Your task to perform on an android device: refresh tabs in the chrome app Image 0: 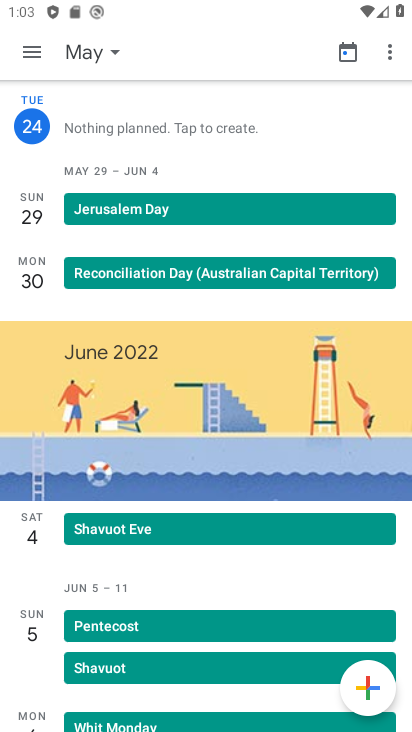
Step 0: press back button
Your task to perform on an android device: refresh tabs in the chrome app Image 1: 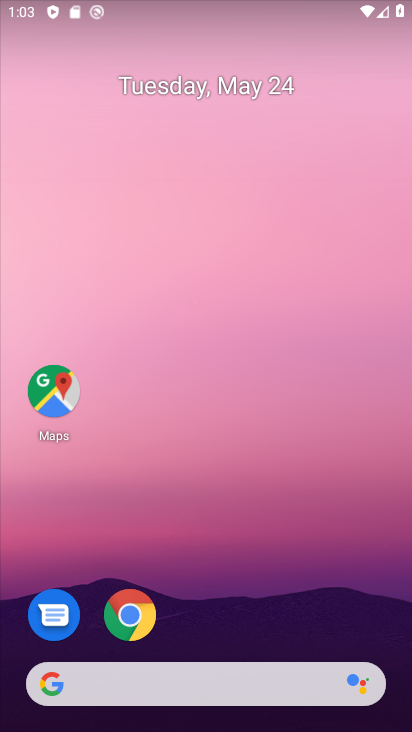
Step 1: click (140, 615)
Your task to perform on an android device: refresh tabs in the chrome app Image 2: 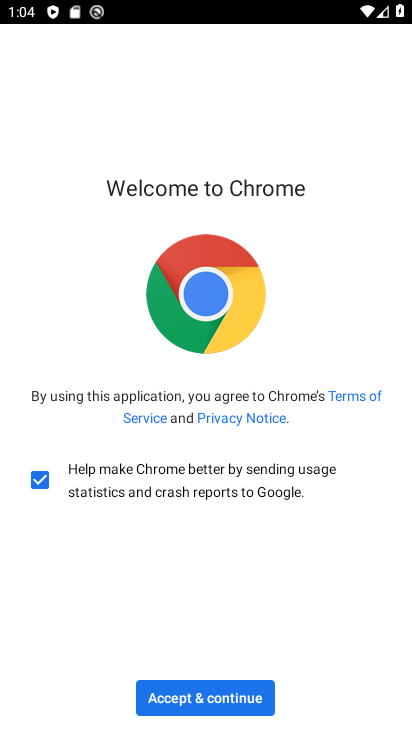
Step 2: click (181, 697)
Your task to perform on an android device: refresh tabs in the chrome app Image 3: 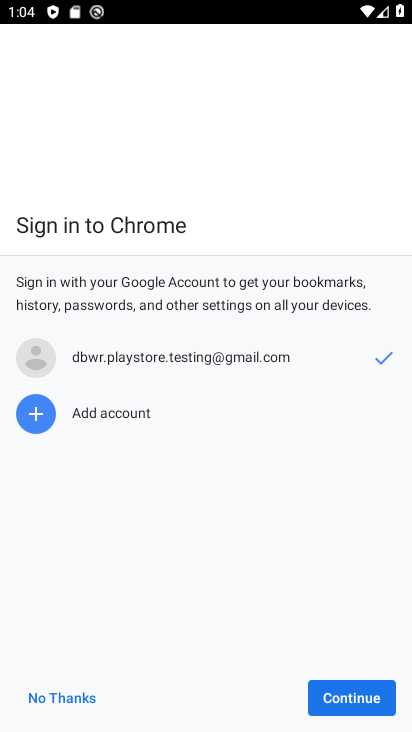
Step 3: click (339, 696)
Your task to perform on an android device: refresh tabs in the chrome app Image 4: 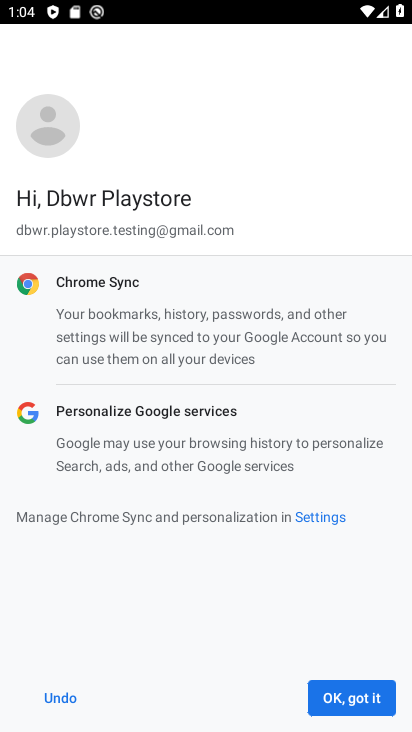
Step 4: click (339, 696)
Your task to perform on an android device: refresh tabs in the chrome app Image 5: 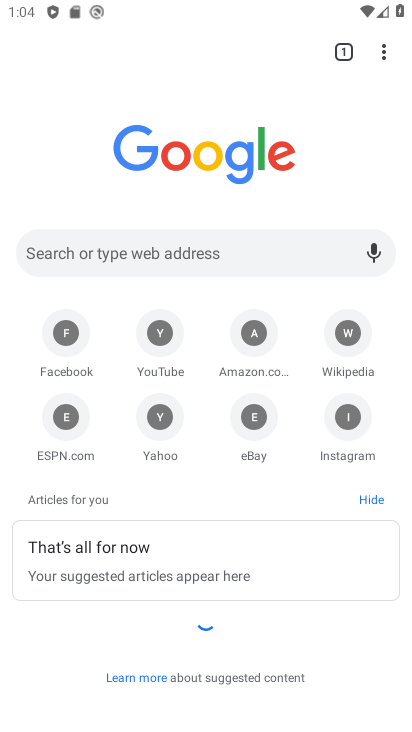
Step 5: click (383, 52)
Your task to perform on an android device: refresh tabs in the chrome app Image 6: 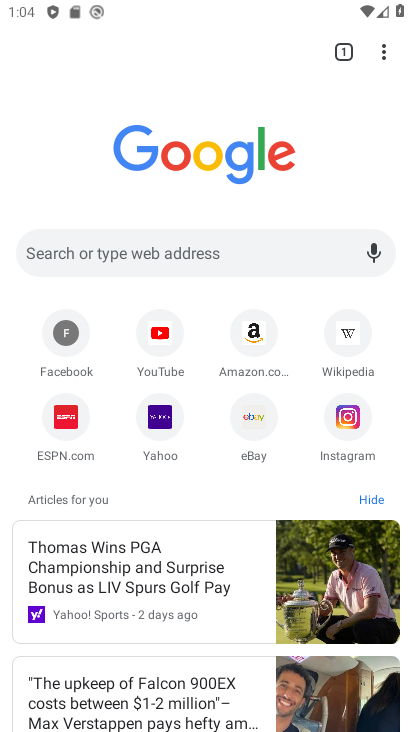
Step 6: task complete